Your task to perform on an android device: Go to Yahoo.com Image 0: 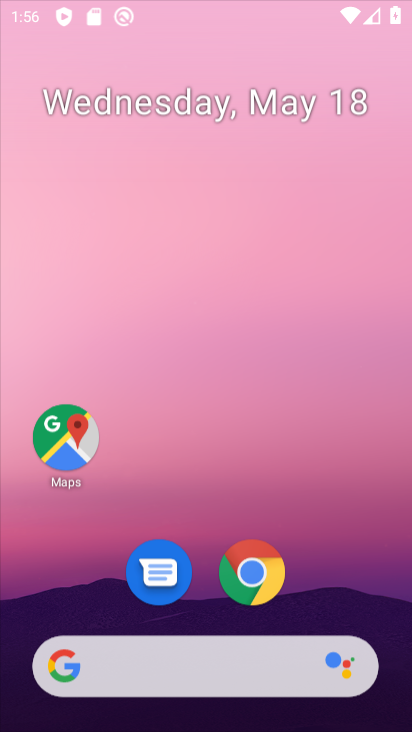
Step 0: drag from (347, 253) to (350, 209)
Your task to perform on an android device: Go to Yahoo.com Image 1: 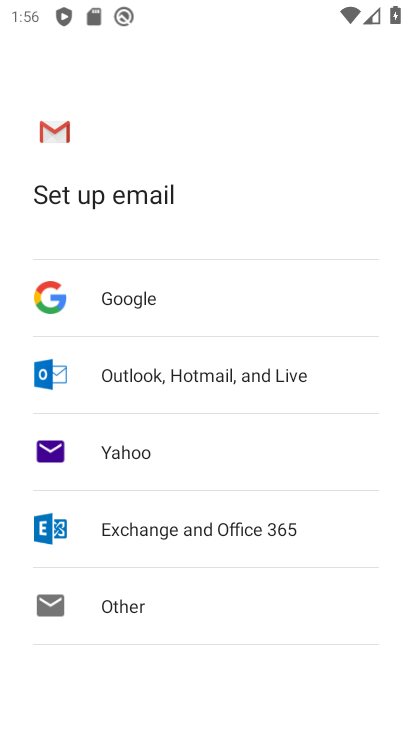
Step 1: press home button
Your task to perform on an android device: Go to Yahoo.com Image 2: 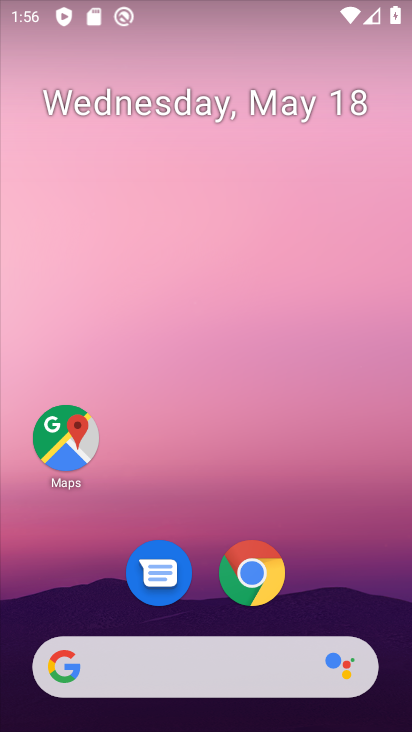
Step 2: click (275, 587)
Your task to perform on an android device: Go to Yahoo.com Image 3: 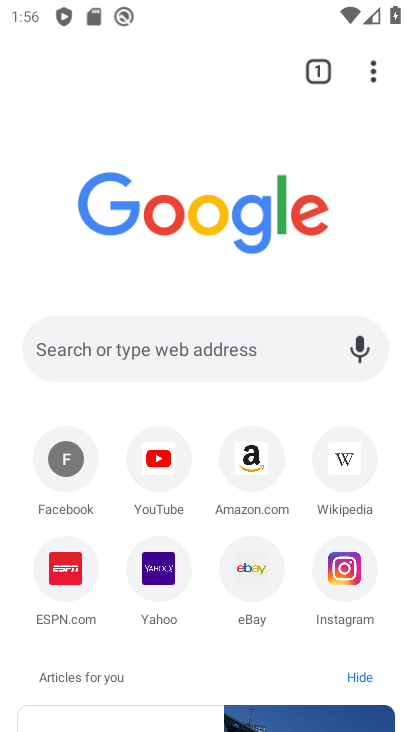
Step 3: click (141, 570)
Your task to perform on an android device: Go to Yahoo.com Image 4: 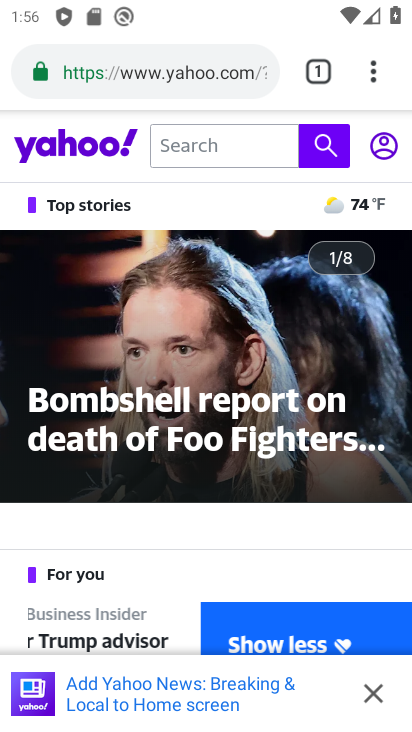
Step 4: task complete